Your task to perform on an android device: turn off smart reply in the gmail app Image 0: 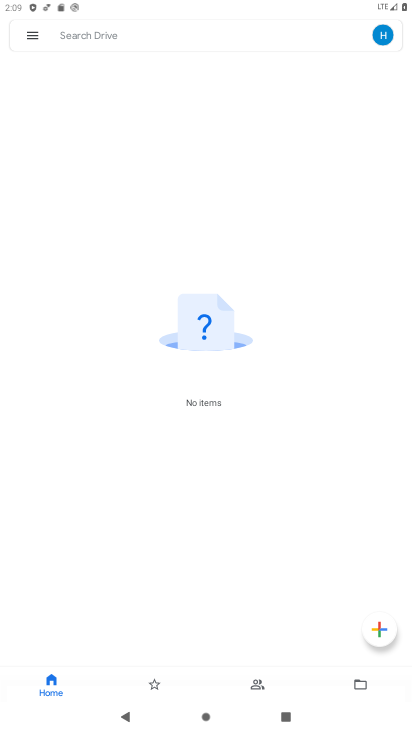
Step 0: press home button
Your task to perform on an android device: turn off smart reply in the gmail app Image 1: 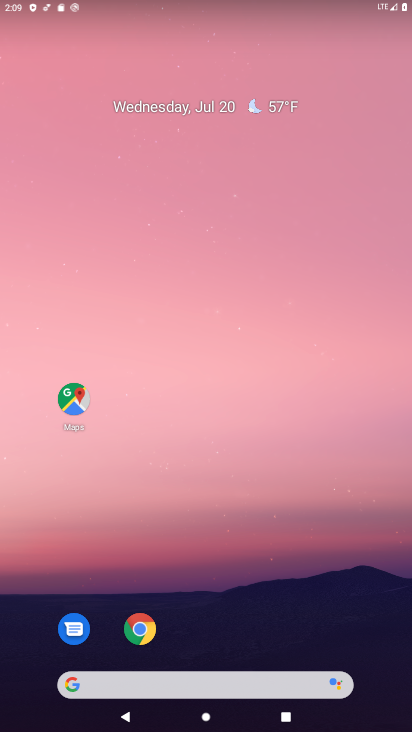
Step 1: drag from (369, 653) to (345, 43)
Your task to perform on an android device: turn off smart reply in the gmail app Image 2: 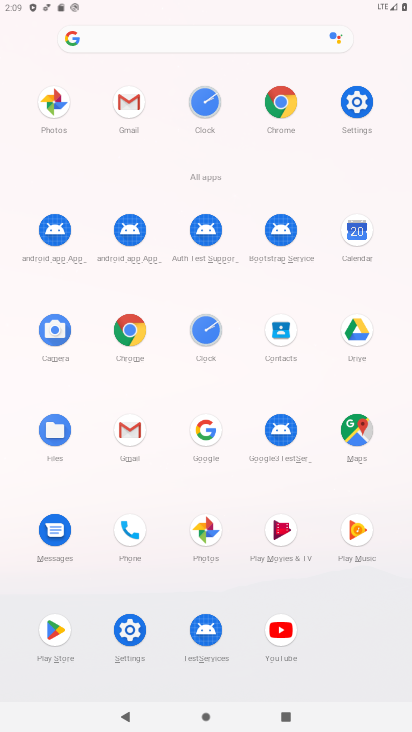
Step 2: click (126, 431)
Your task to perform on an android device: turn off smart reply in the gmail app Image 3: 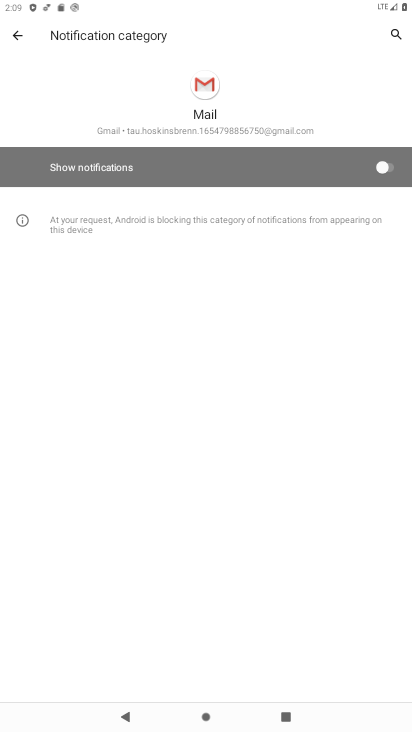
Step 3: press back button
Your task to perform on an android device: turn off smart reply in the gmail app Image 4: 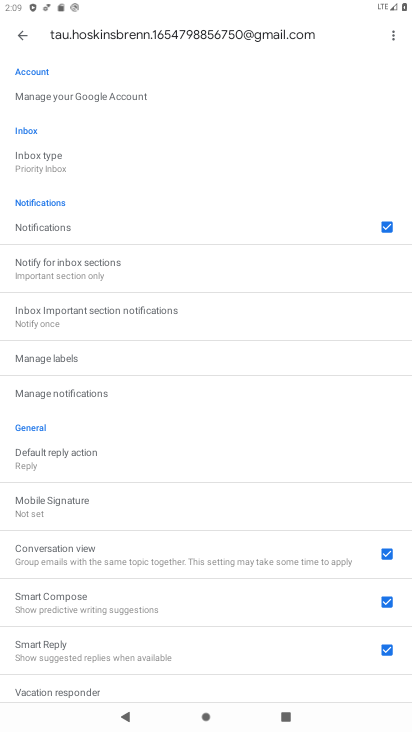
Step 4: drag from (180, 614) to (201, 368)
Your task to perform on an android device: turn off smart reply in the gmail app Image 5: 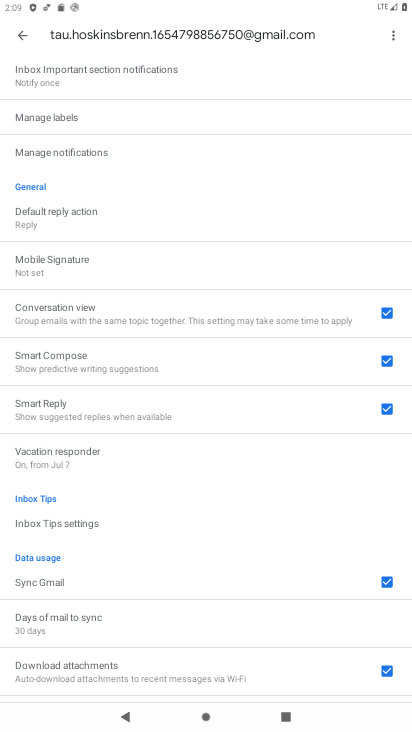
Step 5: click (381, 407)
Your task to perform on an android device: turn off smart reply in the gmail app Image 6: 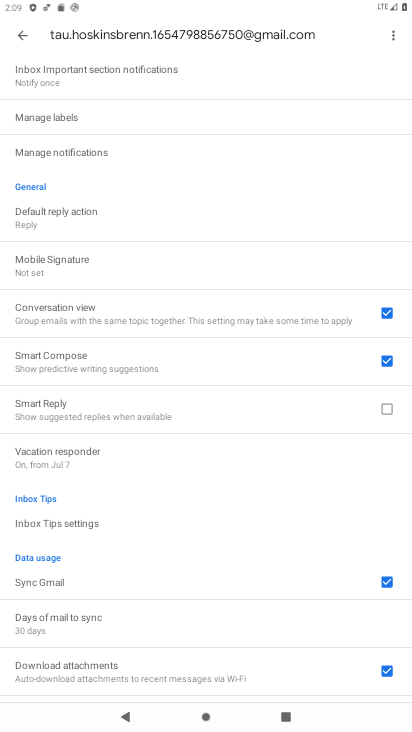
Step 6: task complete